Your task to perform on an android device: read, delete, or share a saved page in the chrome app Image 0: 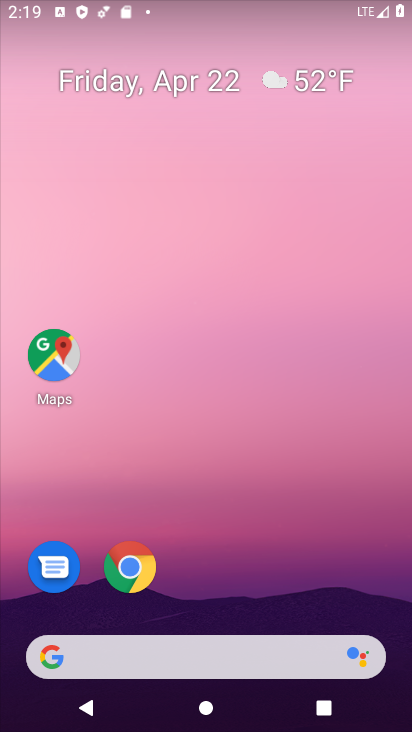
Step 0: click (120, 564)
Your task to perform on an android device: read, delete, or share a saved page in the chrome app Image 1: 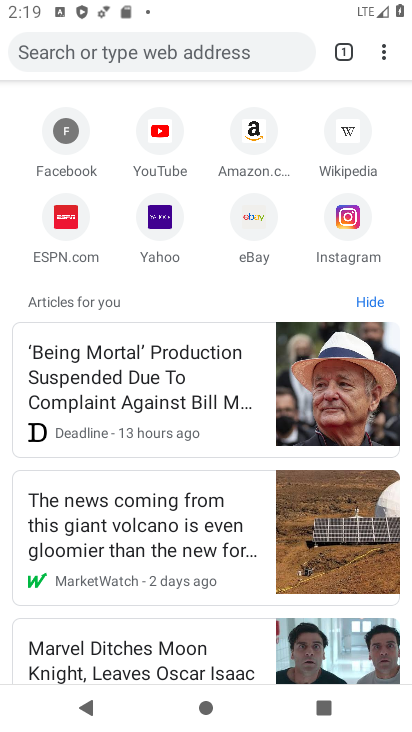
Step 1: click (384, 57)
Your task to perform on an android device: read, delete, or share a saved page in the chrome app Image 2: 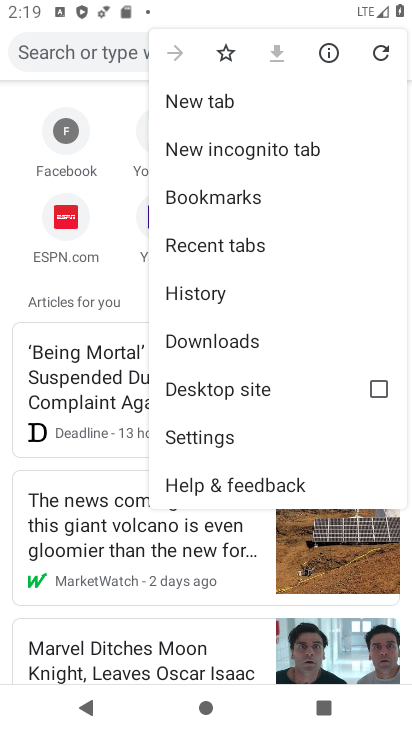
Step 2: click (209, 347)
Your task to perform on an android device: read, delete, or share a saved page in the chrome app Image 3: 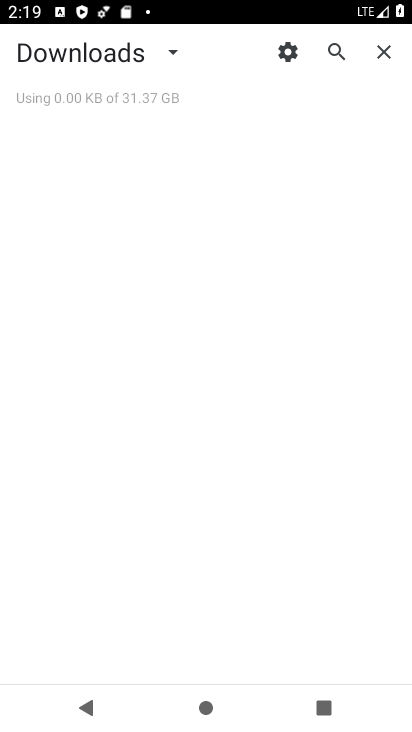
Step 3: click (168, 48)
Your task to perform on an android device: read, delete, or share a saved page in the chrome app Image 4: 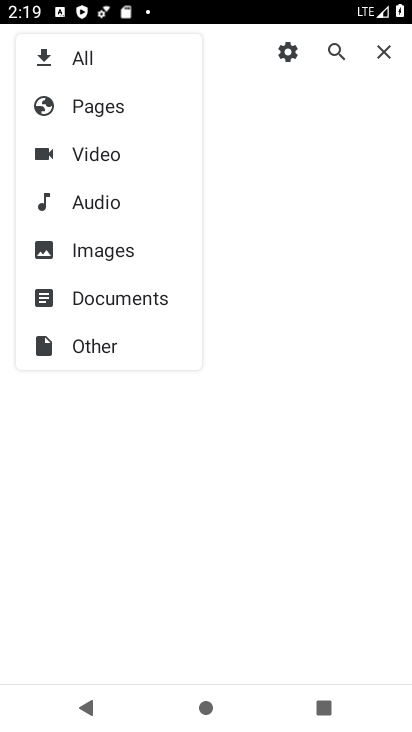
Step 4: click (72, 106)
Your task to perform on an android device: read, delete, or share a saved page in the chrome app Image 5: 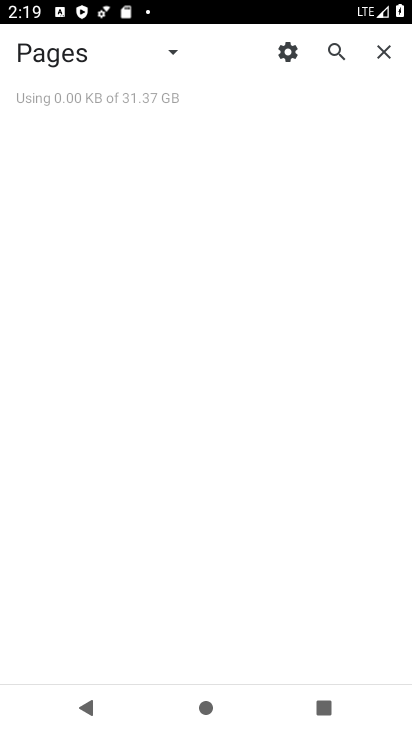
Step 5: task complete